Your task to perform on an android device: Open Amazon Image 0: 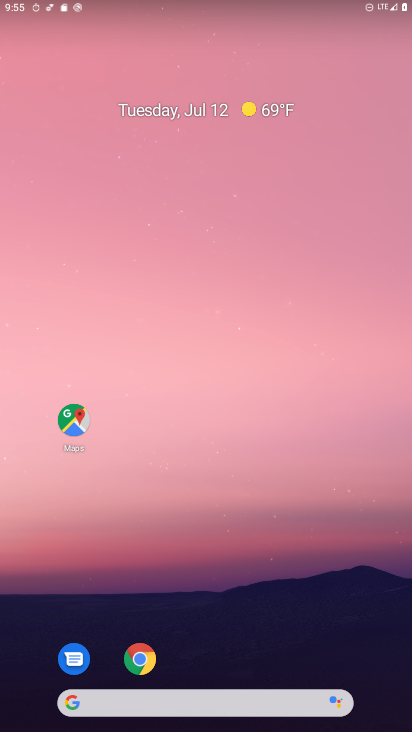
Step 0: click (135, 655)
Your task to perform on an android device: Open Amazon Image 1: 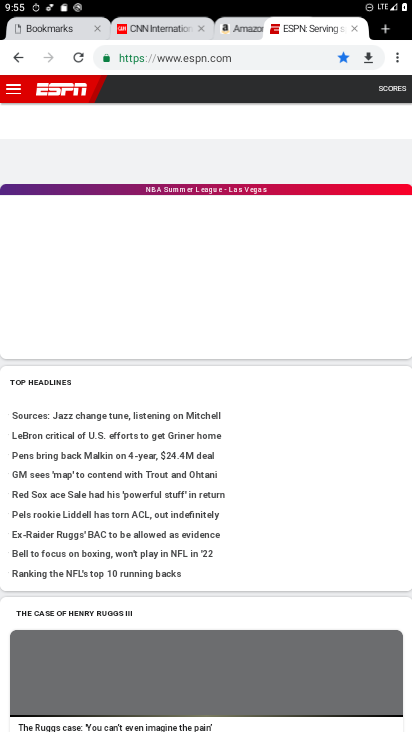
Step 1: click (399, 56)
Your task to perform on an android device: Open Amazon Image 2: 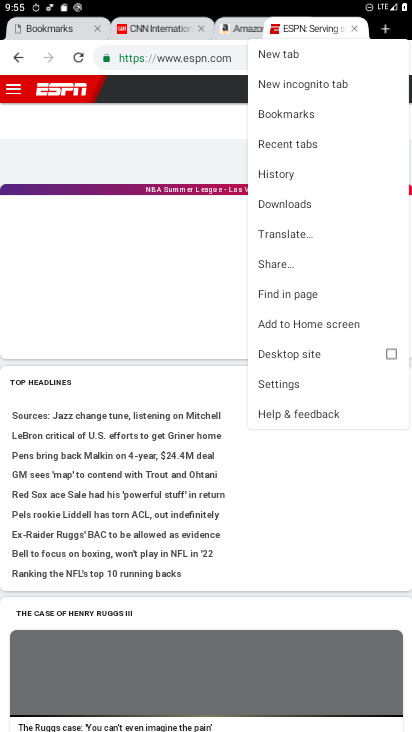
Step 2: click (272, 53)
Your task to perform on an android device: Open Amazon Image 3: 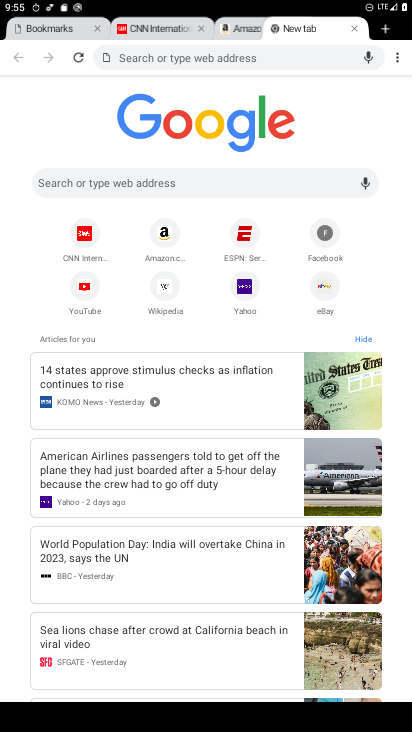
Step 3: click (162, 237)
Your task to perform on an android device: Open Amazon Image 4: 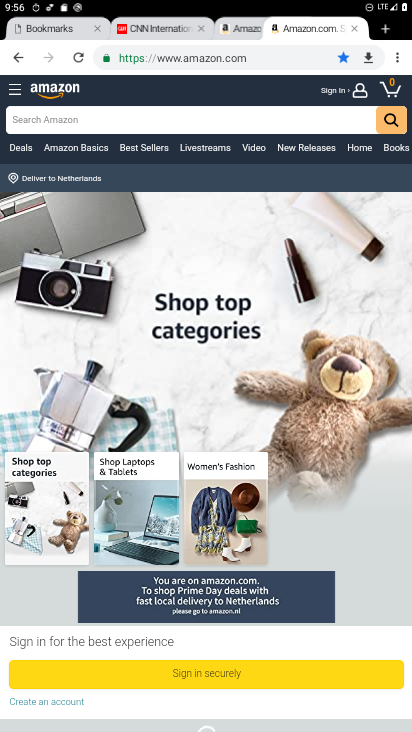
Step 4: task complete